Your task to perform on an android device: toggle airplane mode Image 0: 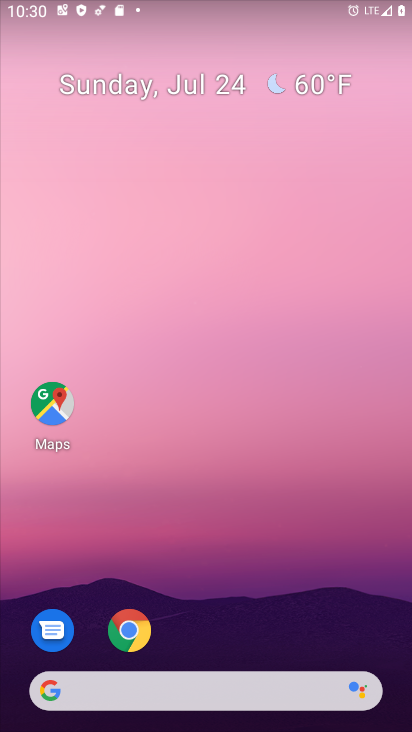
Step 0: drag from (193, 606) to (220, 116)
Your task to perform on an android device: toggle airplane mode Image 1: 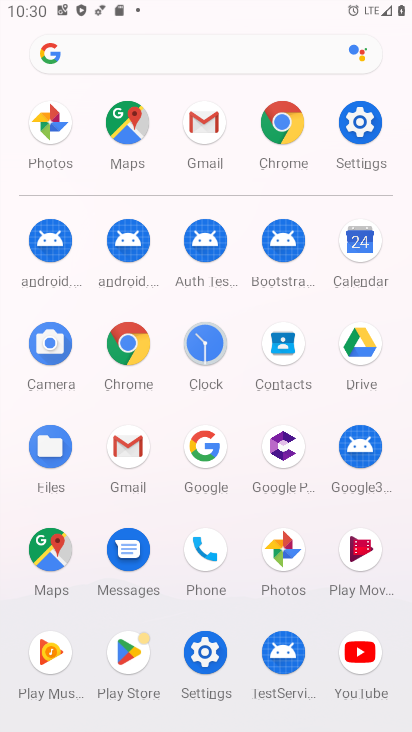
Step 1: click (215, 670)
Your task to perform on an android device: toggle airplane mode Image 2: 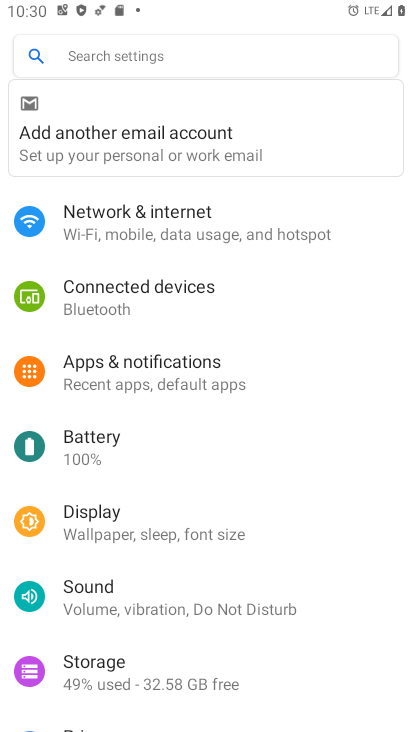
Step 2: click (163, 233)
Your task to perform on an android device: toggle airplane mode Image 3: 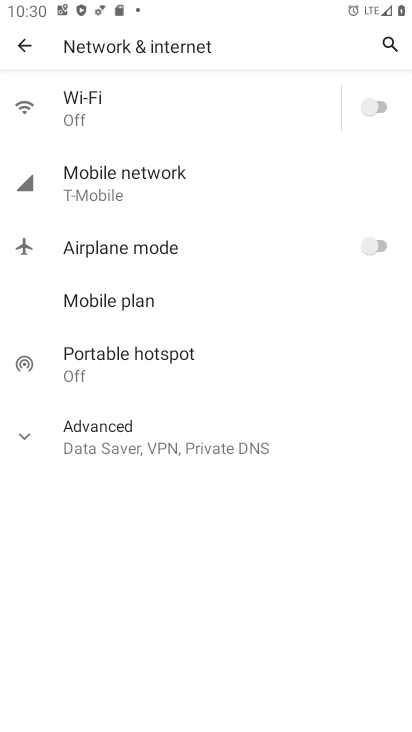
Step 3: click (353, 252)
Your task to perform on an android device: toggle airplane mode Image 4: 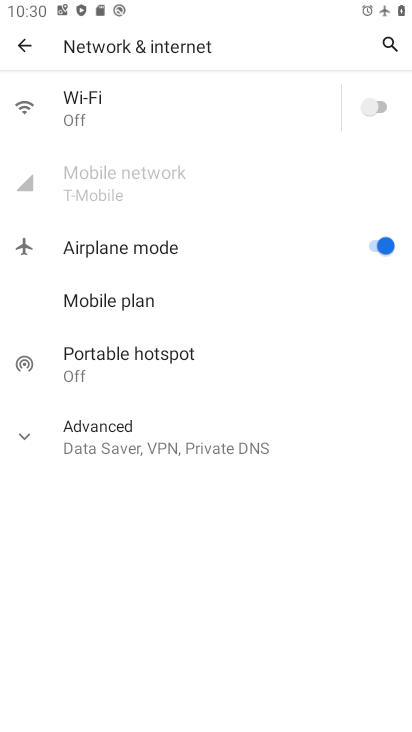
Step 4: task complete